Your task to perform on an android device: Show me recent news Image 0: 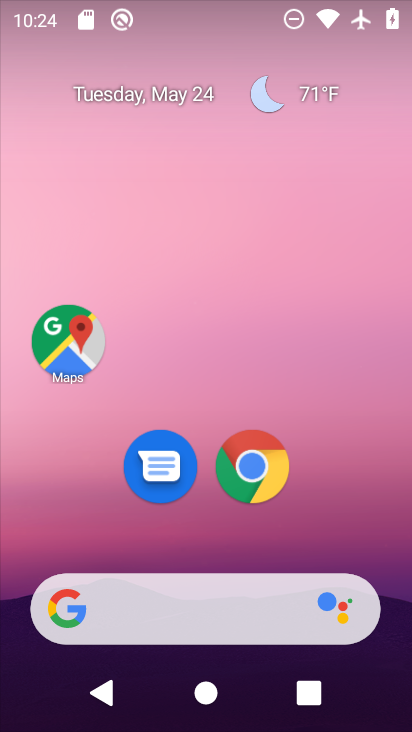
Step 0: drag from (203, 563) to (271, 147)
Your task to perform on an android device: Show me recent news Image 1: 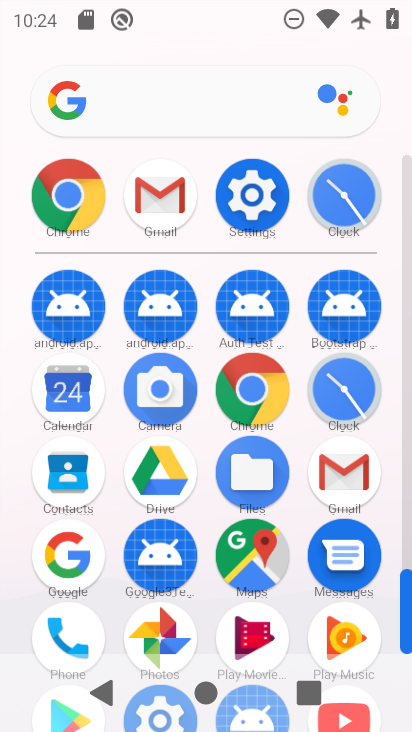
Step 1: click (238, 125)
Your task to perform on an android device: Show me recent news Image 2: 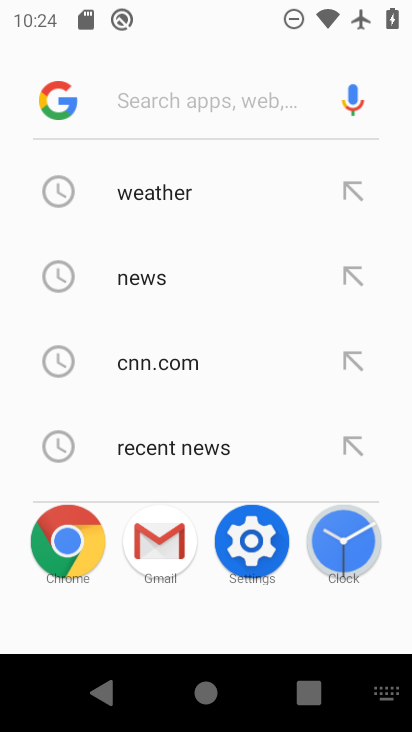
Step 2: type "recent news"
Your task to perform on an android device: Show me recent news Image 3: 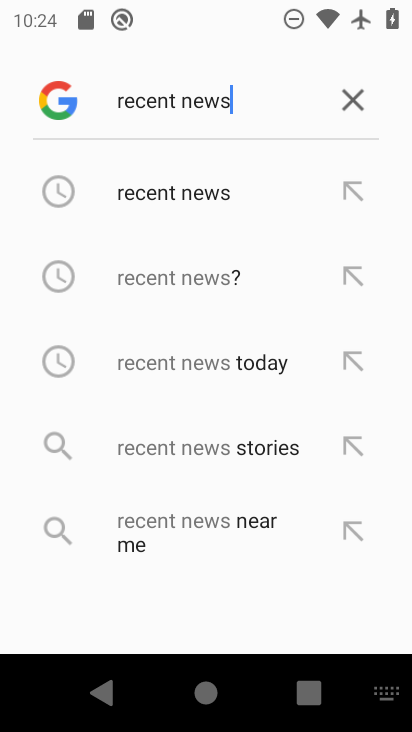
Step 3: click (205, 211)
Your task to perform on an android device: Show me recent news Image 4: 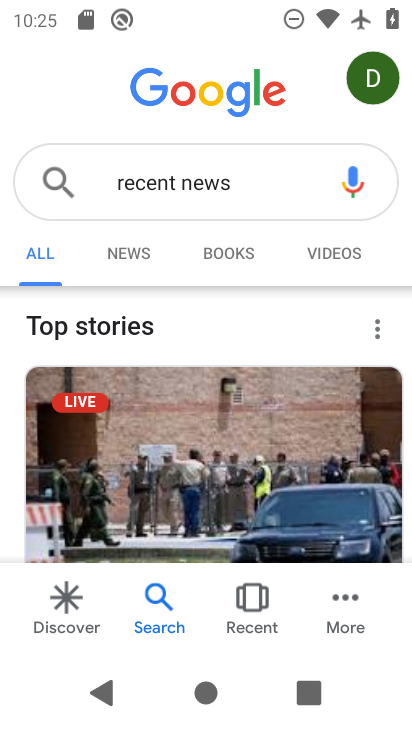
Step 4: task complete